Your task to perform on an android device: Go to Android settings Image 0: 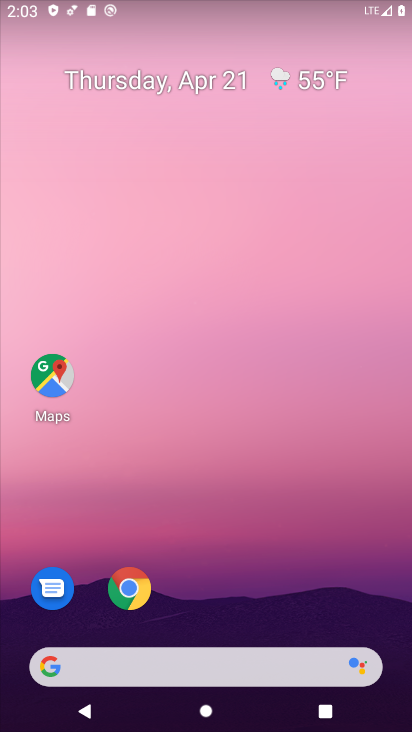
Step 0: drag from (266, 602) to (275, 32)
Your task to perform on an android device: Go to Android settings Image 1: 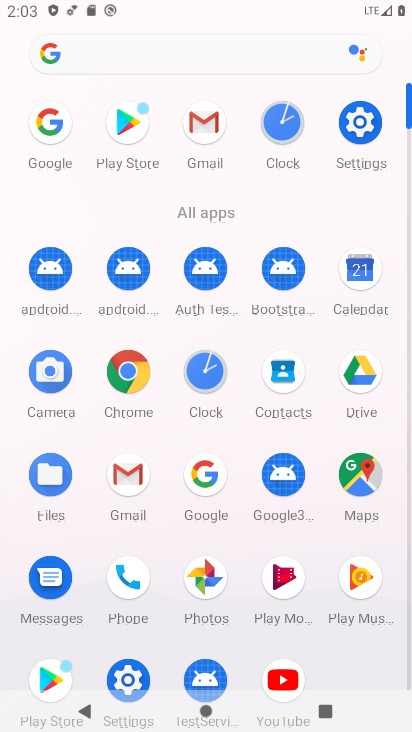
Step 1: click (359, 125)
Your task to perform on an android device: Go to Android settings Image 2: 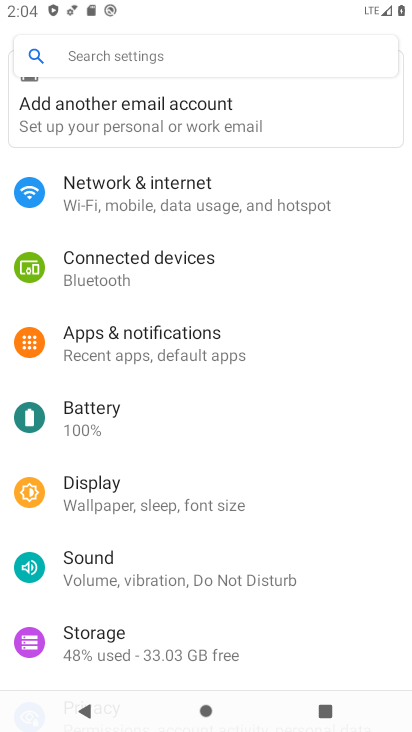
Step 2: drag from (146, 422) to (153, 262)
Your task to perform on an android device: Go to Android settings Image 3: 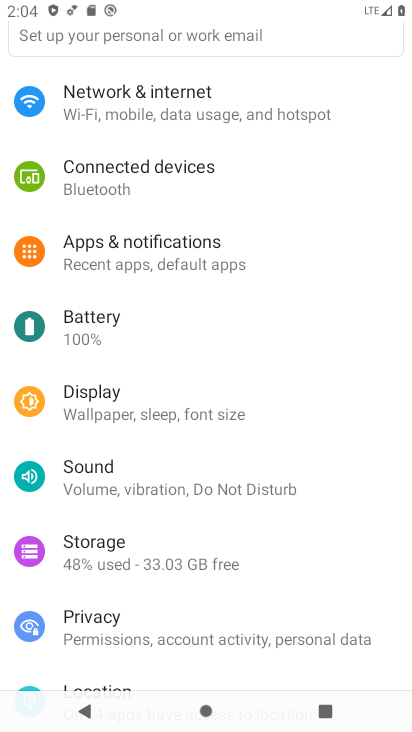
Step 3: drag from (140, 295) to (143, 210)
Your task to perform on an android device: Go to Android settings Image 4: 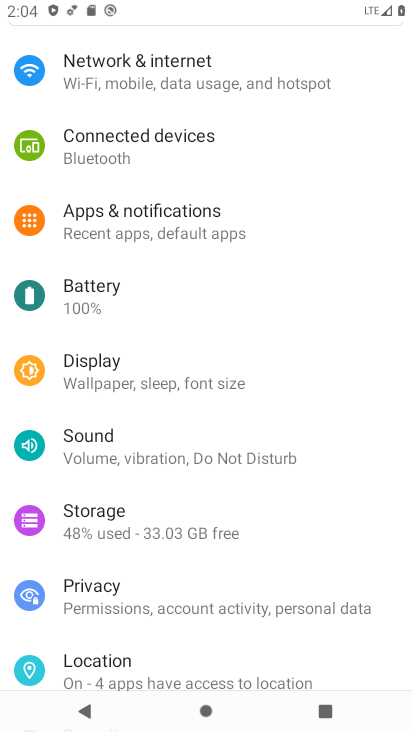
Step 4: drag from (165, 398) to (165, 264)
Your task to perform on an android device: Go to Android settings Image 5: 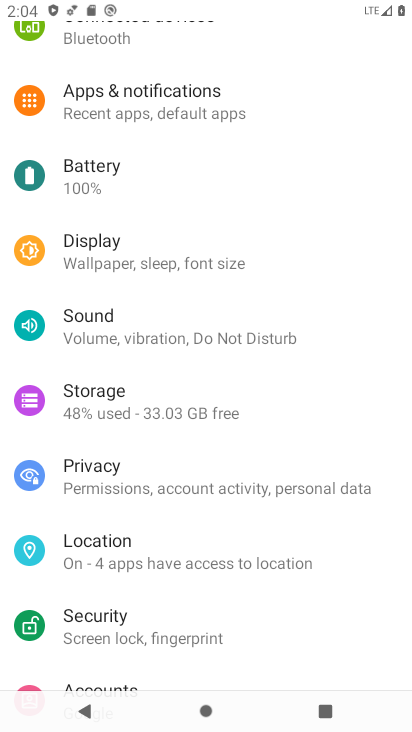
Step 5: drag from (133, 422) to (140, 317)
Your task to perform on an android device: Go to Android settings Image 6: 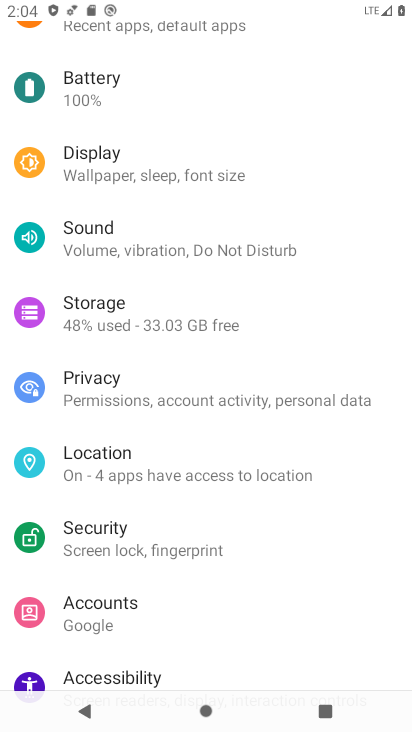
Step 6: drag from (149, 454) to (147, 358)
Your task to perform on an android device: Go to Android settings Image 7: 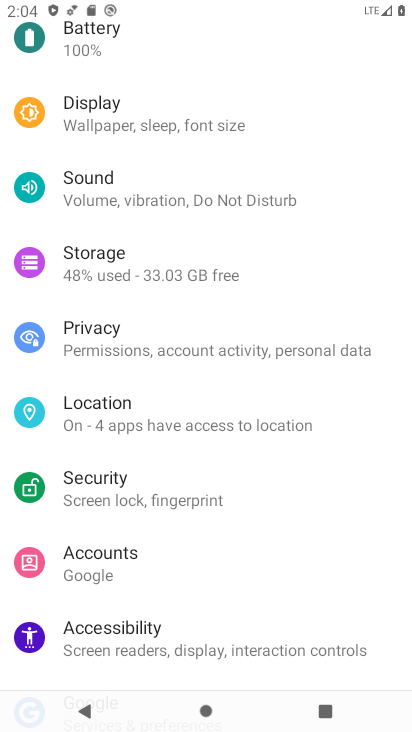
Step 7: drag from (153, 476) to (155, 384)
Your task to perform on an android device: Go to Android settings Image 8: 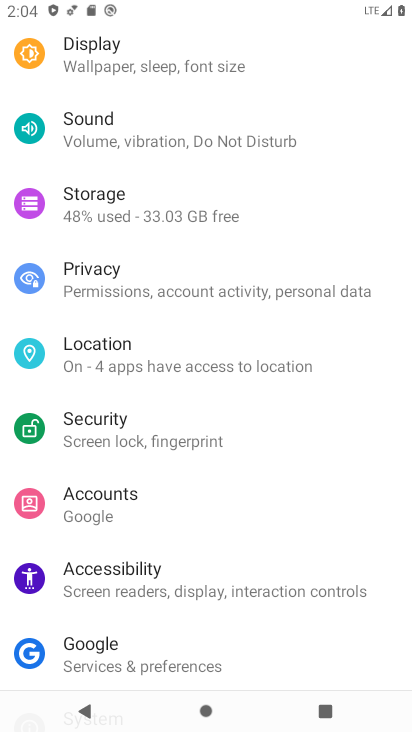
Step 8: drag from (161, 479) to (147, 381)
Your task to perform on an android device: Go to Android settings Image 9: 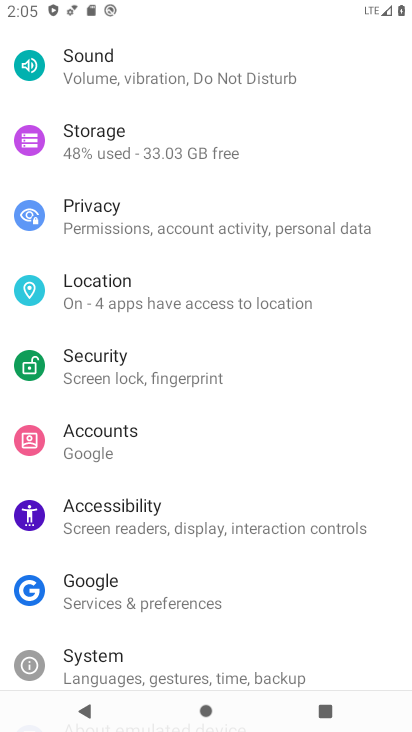
Step 9: click (151, 659)
Your task to perform on an android device: Go to Android settings Image 10: 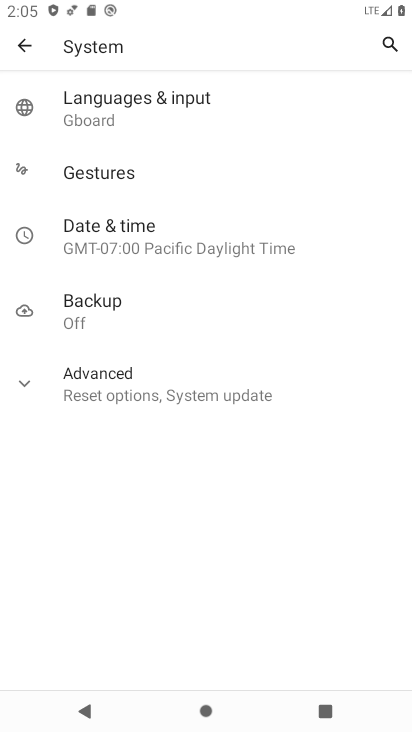
Step 10: task complete